Your task to perform on an android device: turn on sleep mode Image 0: 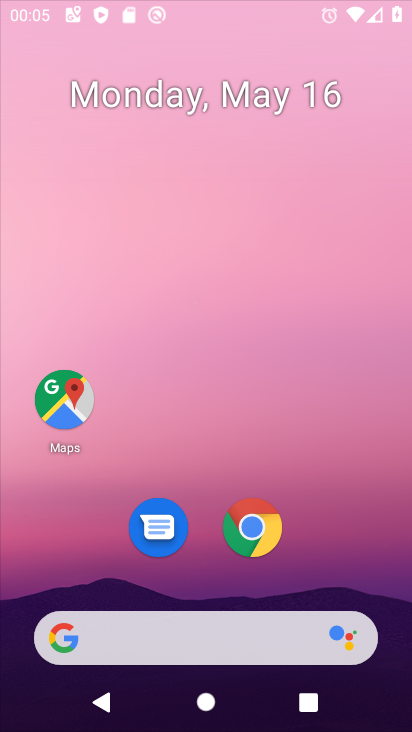
Step 0: drag from (382, 557) to (275, 174)
Your task to perform on an android device: turn on sleep mode Image 1: 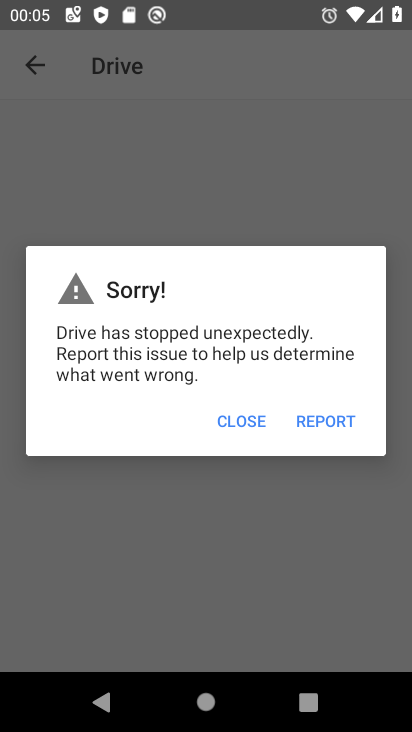
Step 1: press home button
Your task to perform on an android device: turn on sleep mode Image 2: 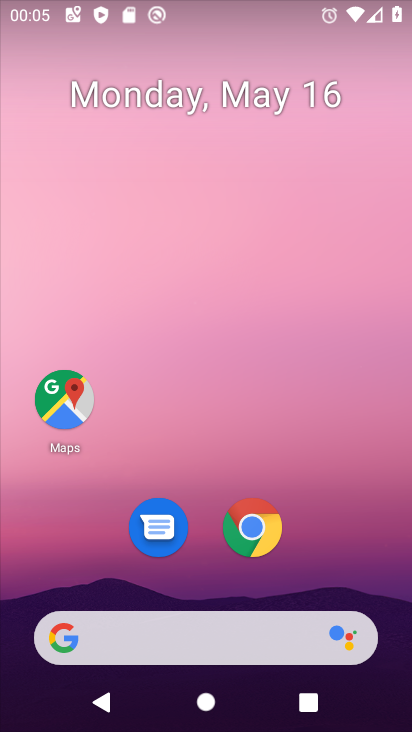
Step 2: drag from (356, 572) to (251, 129)
Your task to perform on an android device: turn on sleep mode Image 3: 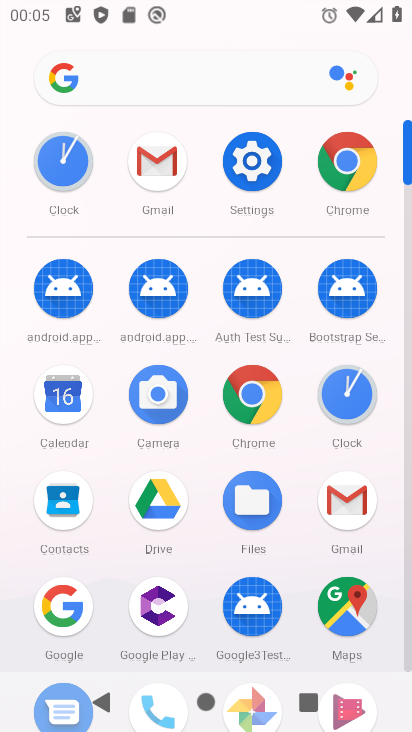
Step 3: click (261, 164)
Your task to perform on an android device: turn on sleep mode Image 4: 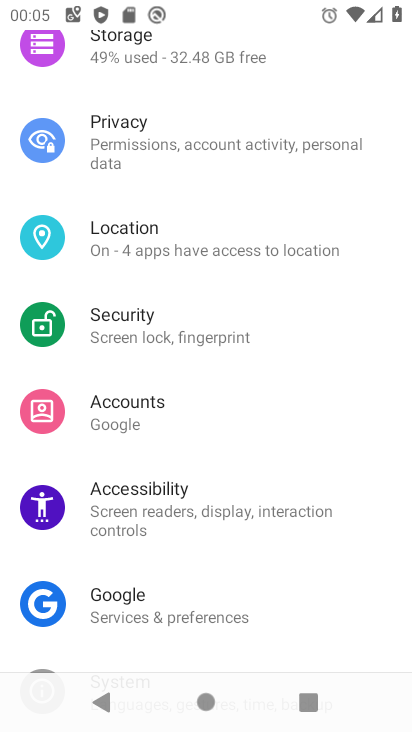
Step 4: drag from (218, 330) to (246, 691)
Your task to perform on an android device: turn on sleep mode Image 5: 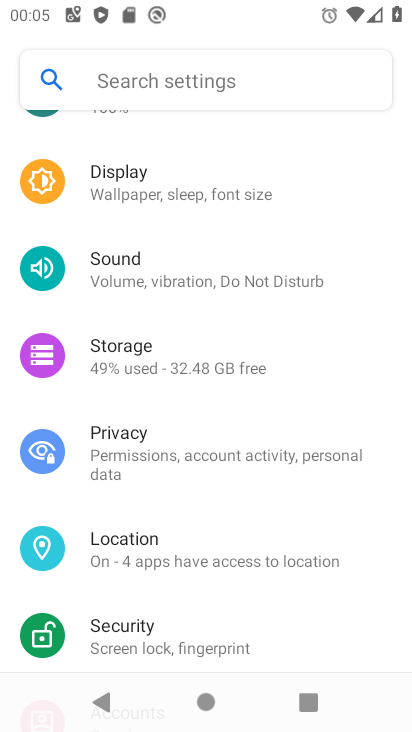
Step 5: click (230, 176)
Your task to perform on an android device: turn on sleep mode Image 6: 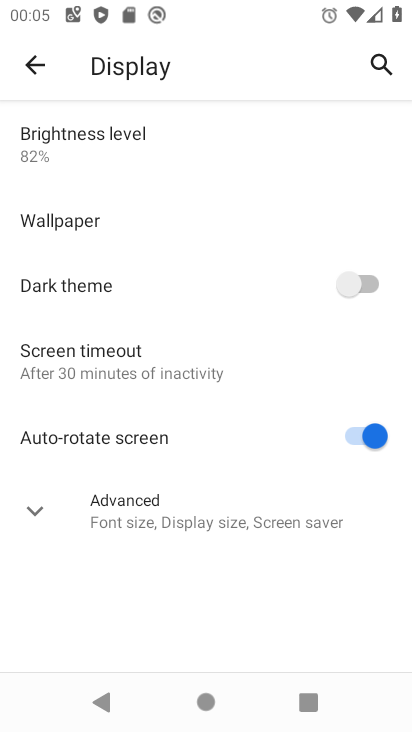
Step 6: click (206, 362)
Your task to perform on an android device: turn on sleep mode Image 7: 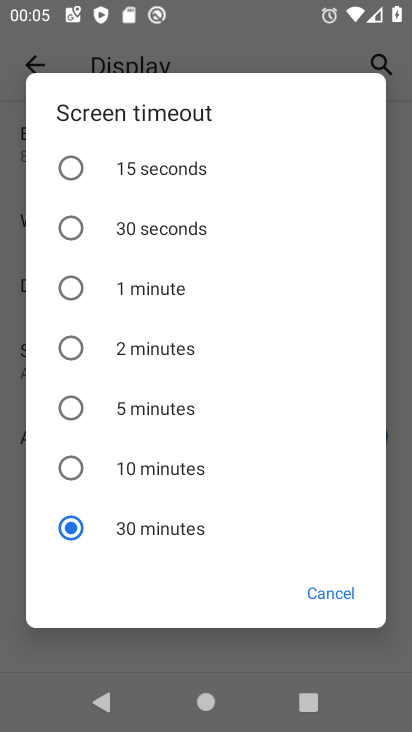
Step 7: click (215, 156)
Your task to perform on an android device: turn on sleep mode Image 8: 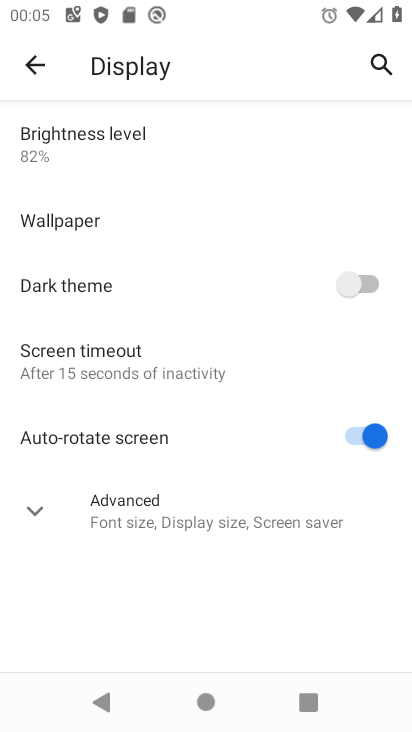
Step 8: task complete